Your task to perform on an android device: Go to Android settings Image 0: 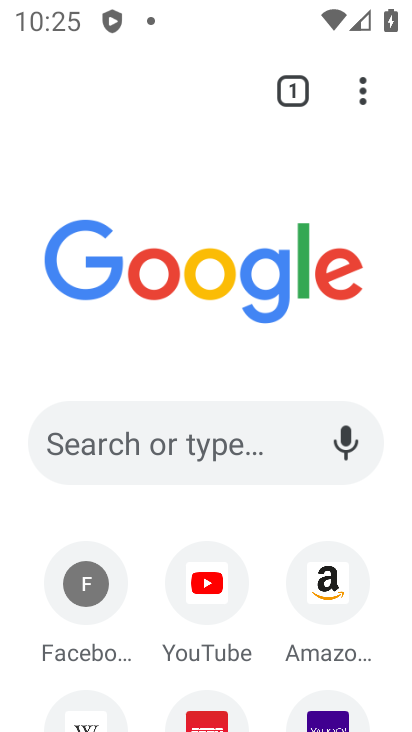
Step 0: press home button
Your task to perform on an android device: Go to Android settings Image 1: 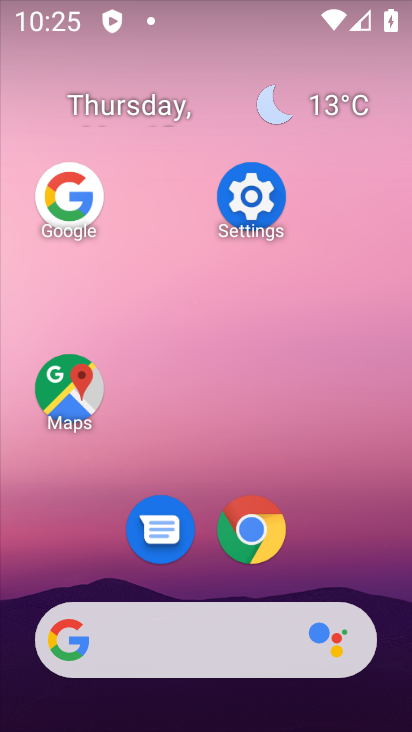
Step 1: click (249, 217)
Your task to perform on an android device: Go to Android settings Image 2: 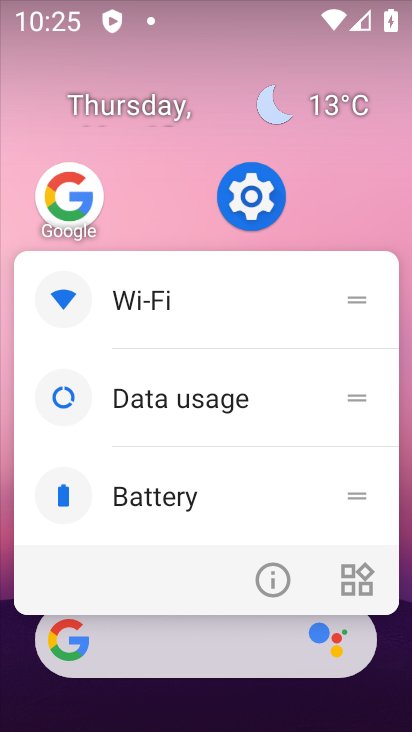
Step 2: click (265, 173)
Your task to perform on an android device: Go to Android settings Image 3: 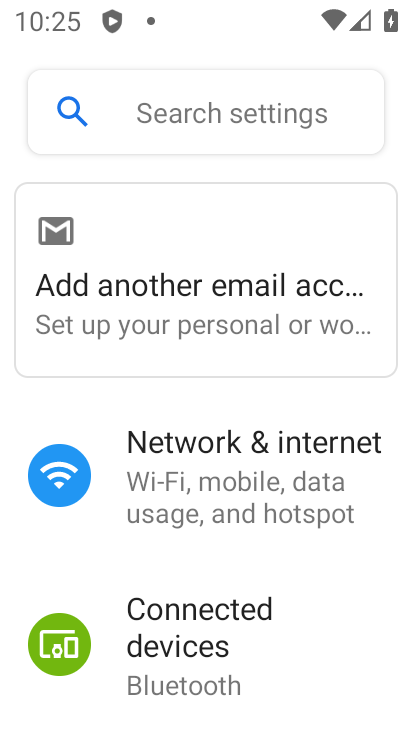
Step 3: task complete